Your task to perform on an android device: What's on my calendar today? Image 0: 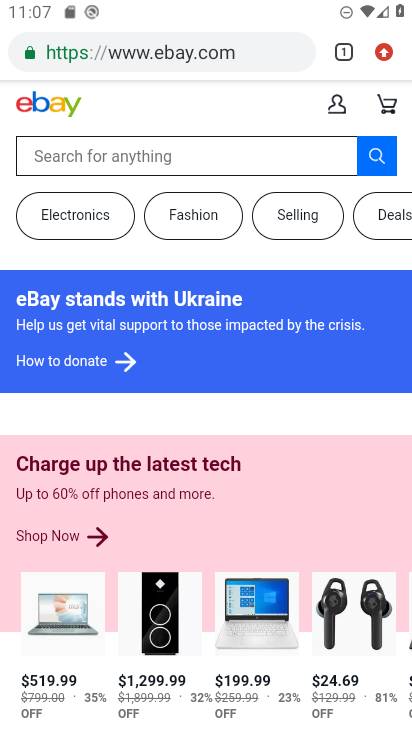
Step 0: press home button
Your task to perform on an android device: What's on my calendar today? Image 1: 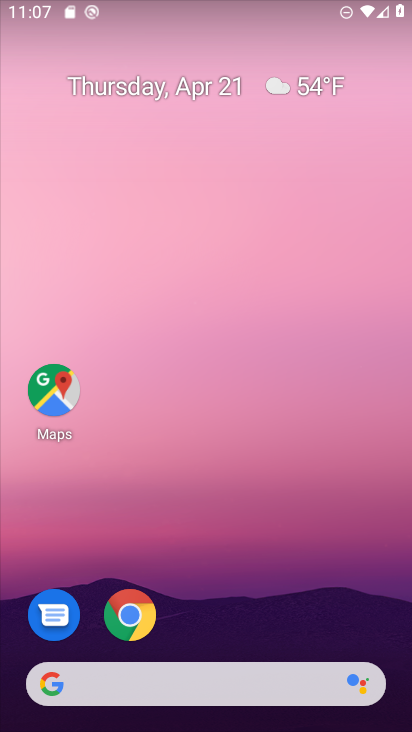
Step 1: drag from (258, 600) to (233, 232)
Your task to perform on an android device: What's on my calendar today? Image 2: 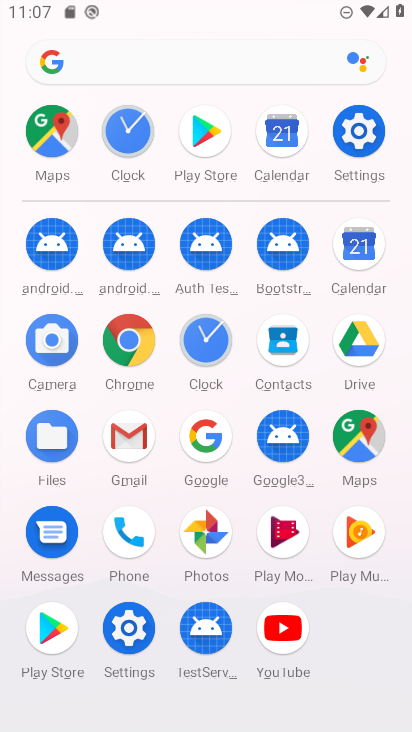
Step 2: click (354, 252)
Your task to perform on an android device: What's on my calendar today? Image 3: 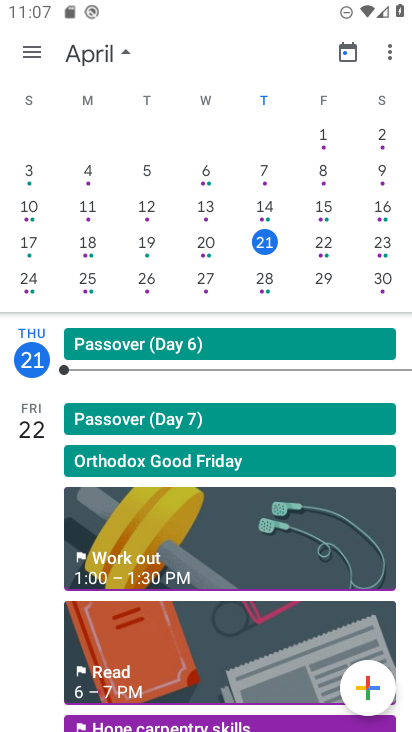
Step 3: click (277, 240)
Your task to perform on an android device: What's on my calendar today? Image 4: 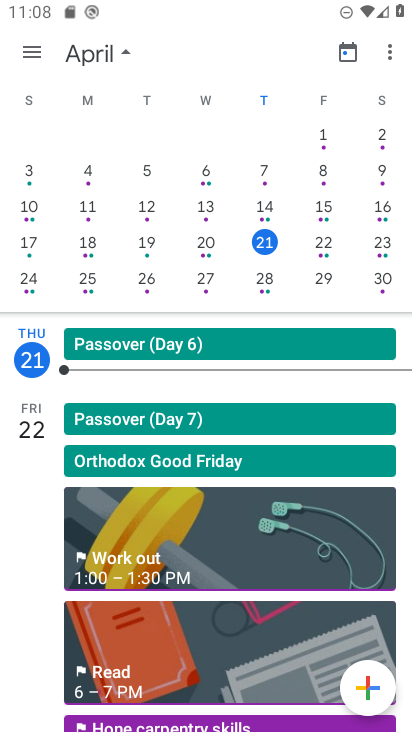
Step 4: task complete